Your task to perform on an android device: Find coffee shops on Maps Image 0: 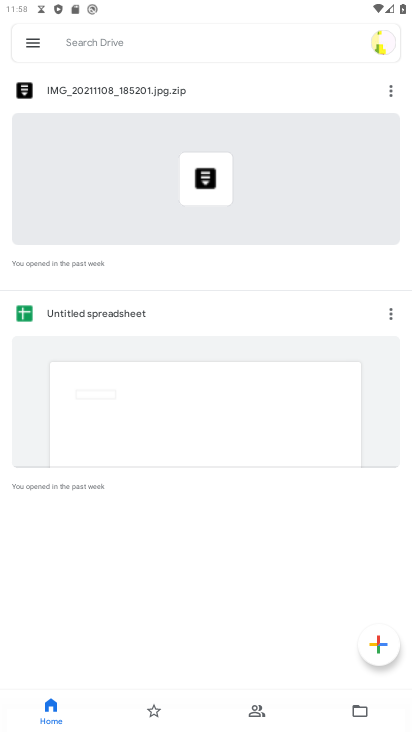
Step 0: press home button
Your task to perform on an android device: Find coffee shops on Maps Image 1: 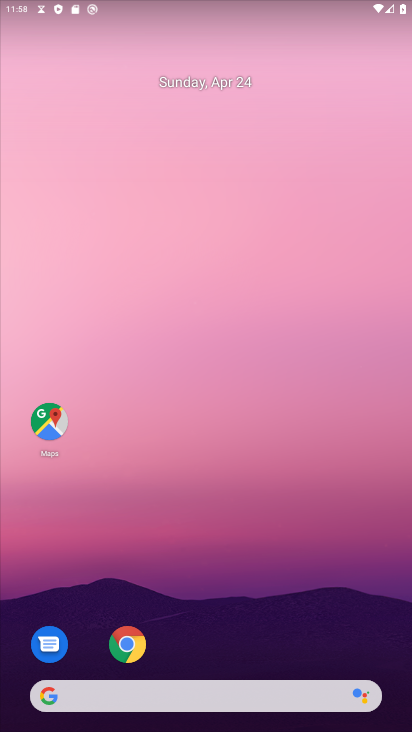
Step 1: click (46, 423)
Your task to perform on an android device: Find coffee shops on Maps Image 2: 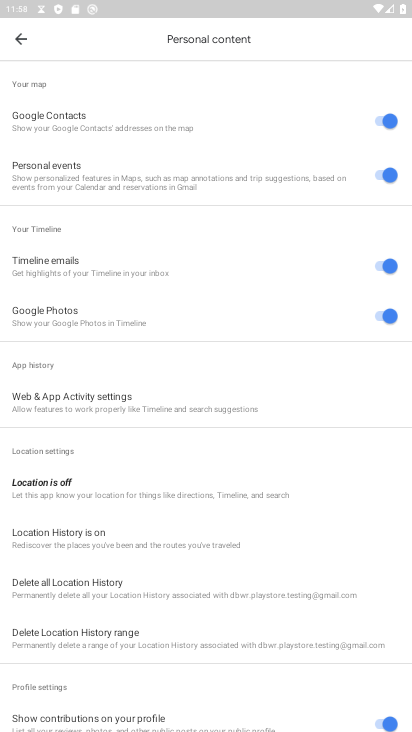
Step 2: click (15, 39)
Your task to perform on an android device: Find coffee shops on Maps Image 3: 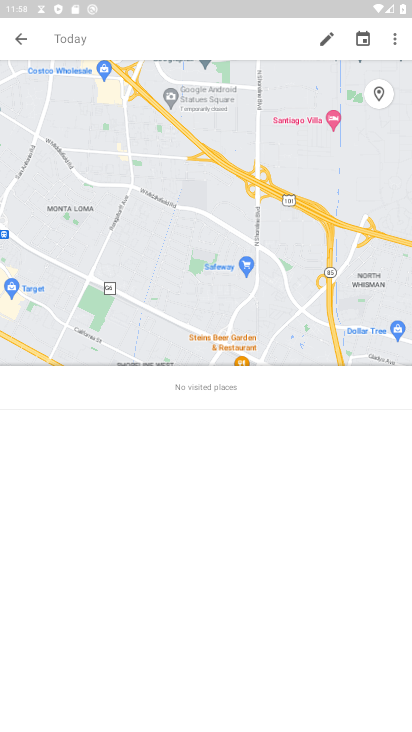
Step 3: click (23, 40)
Your task to perform on an android device: Find coffee shops on Maps Image 4: 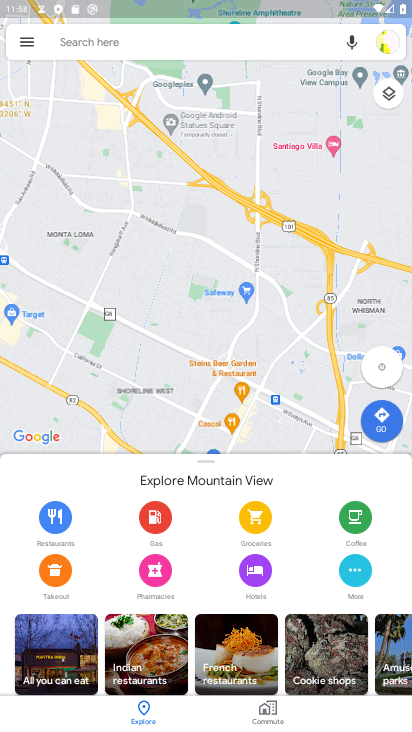
Step 4: click (70, 42)
Your task to perform on an android device: Find coffee shops on Maps Image 5: 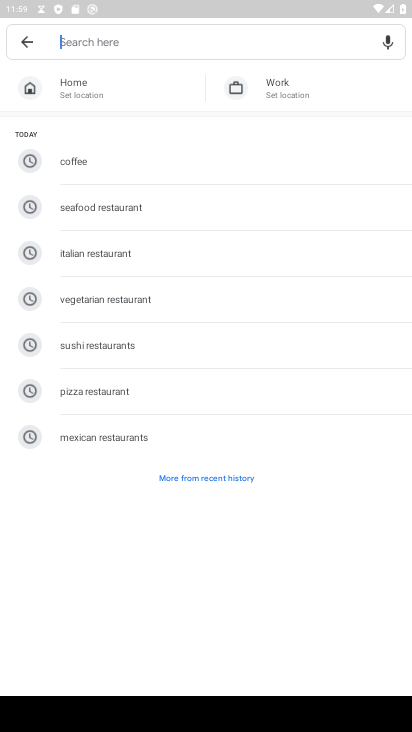
Step 5: type "coffee shop"
Your task to perform on an android device: Find coffee shops on Maps Image 6: 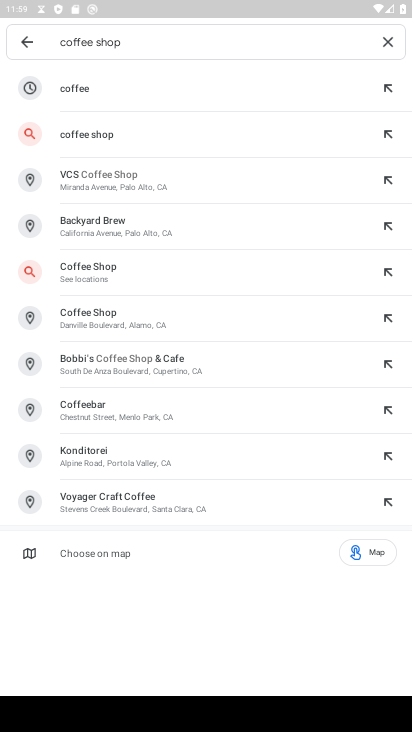
Step 6: click (95, 127)
Your task to perform on an android device: Find coffee shops on Maps Image 7: 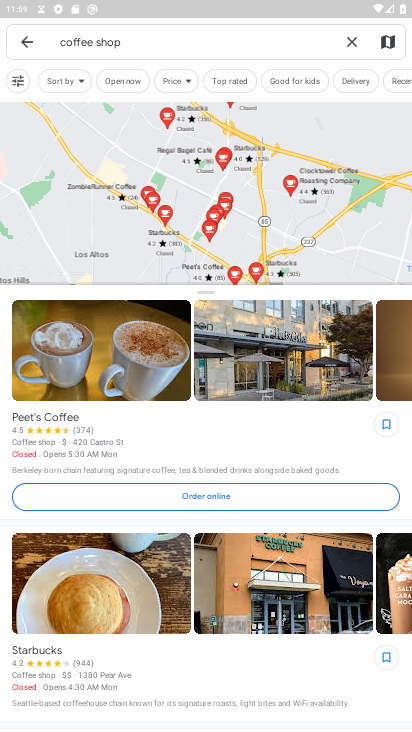
Step 7: task complete